Your task to perform on an android device: Go to Google maps Image 0: 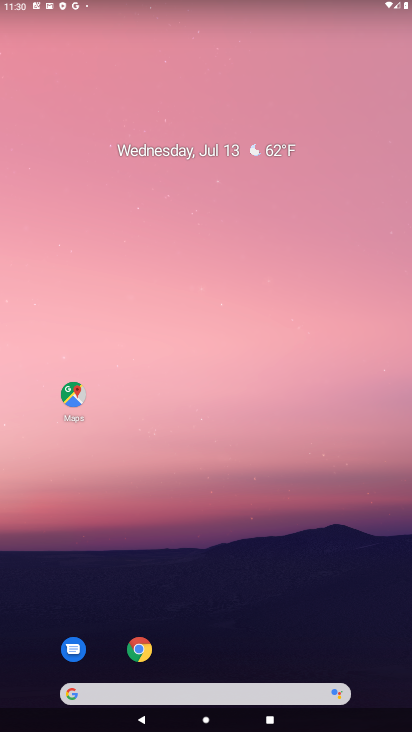
Step 0: drag from (384, 675) to (140, 36)
Your task to perform on an android device: Go to Google maps Image 1: 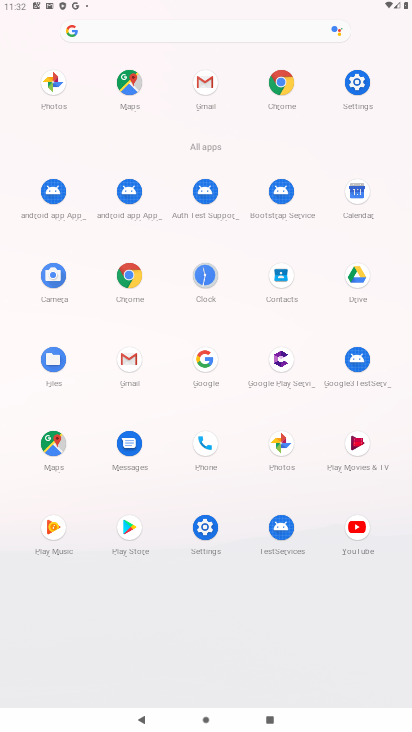
Step 1: click (47, 445)
Your task to perform on an android device: Go to Google maps Image 2: 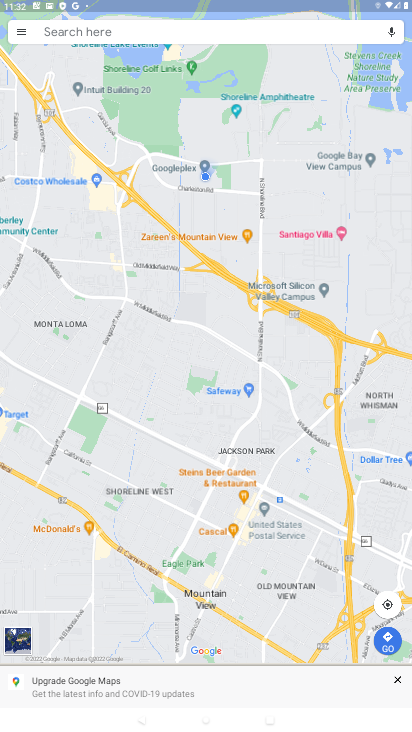
Step 2: task complete